Your task to perform on an android device: Go to battery settings Image 0: 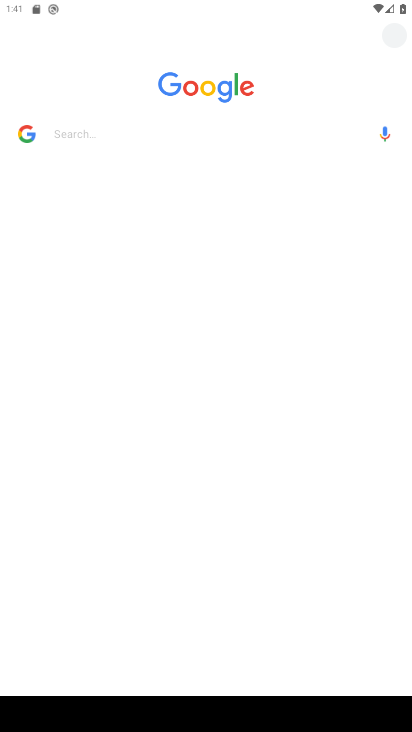
Step 0: press back button
Your task to perform on an android device: Go to battery settings Image 1: 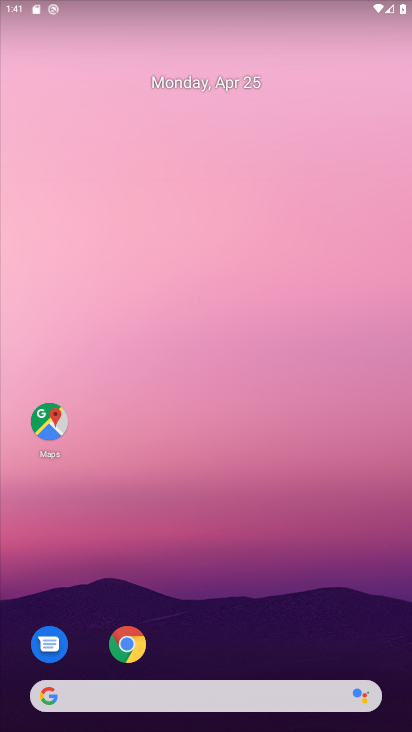
Step 1: drag from (193, 452) to (246, 107)
Your task to perform on an android device: Go to battery settings Image 2: 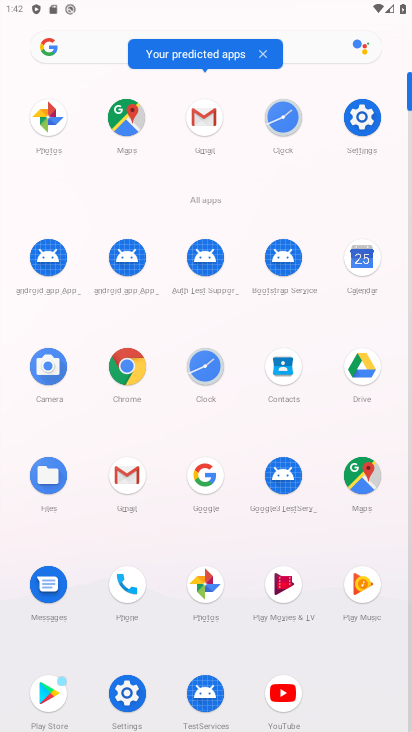
Step 2: click (140, 694)
Your task to perform on an android device: Go to battery settings Image 3: 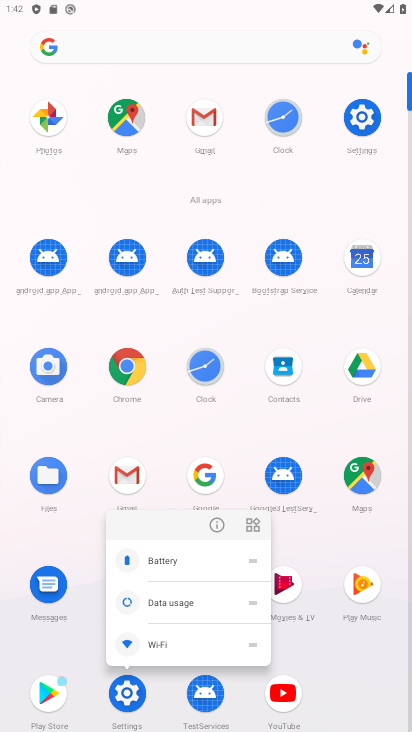
Step 3: click (136, 680)
Your task to perform on an android device: Go to battery settings Image 4: 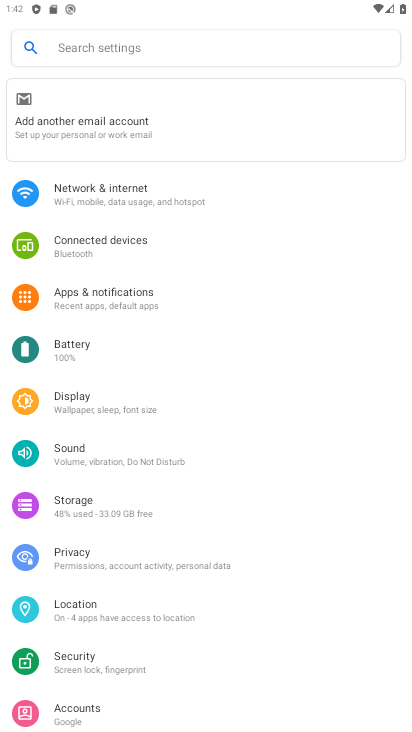
Step 4: drag from (133, 540) to (190, 328)
Your task to perform on an android device: Go to battery settings Image 5: 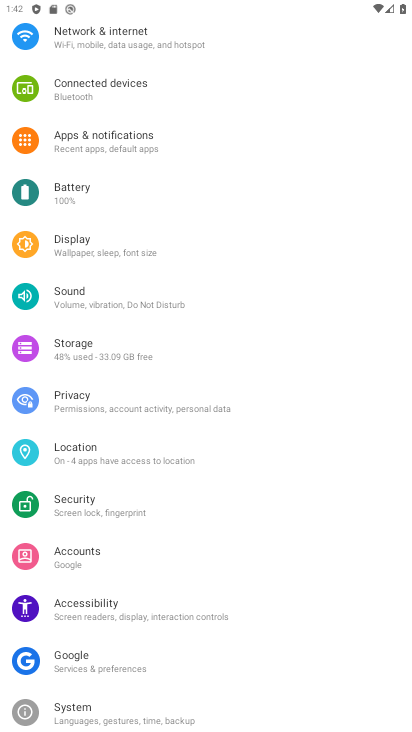
Step 5: click (106, 197)
Your task to perform on an android device: Go to battery settings Image 6: 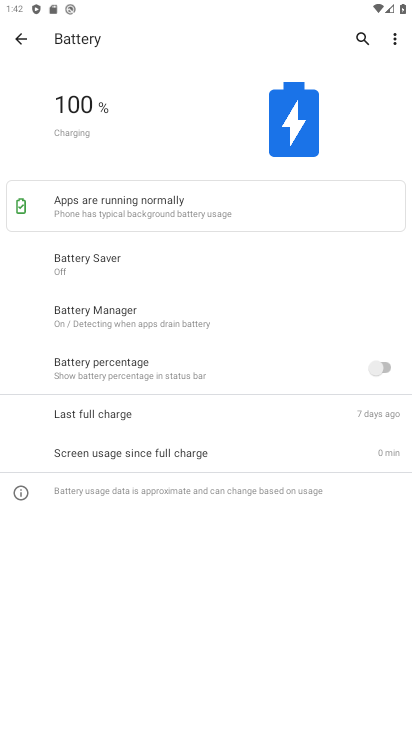
Step 6: click (395, 46)
Your task to perform on an android device: Go to battery settings Image 7: 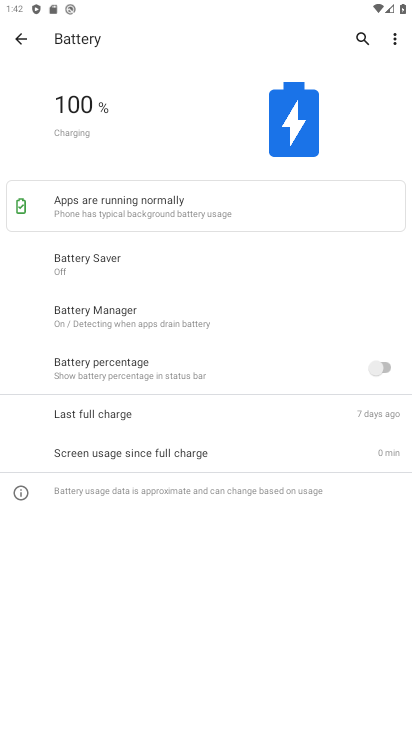
Step 7: task complete